Your task to perform on an android device: toggle improve location accuracy Image 0: 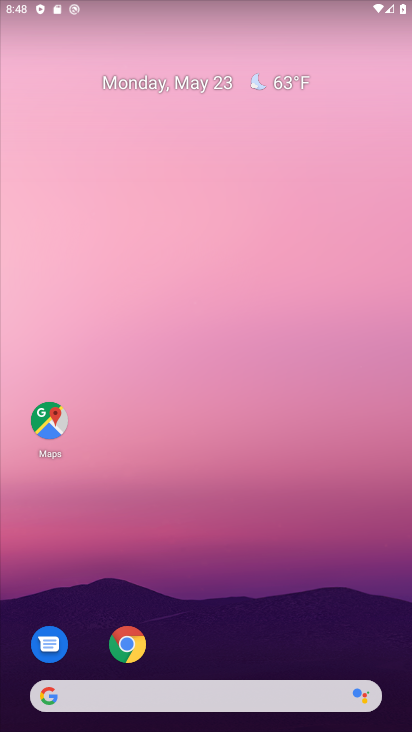
Step 0: press home button
Your task to perform on an android device: toggle improve location accuracy Image 1: 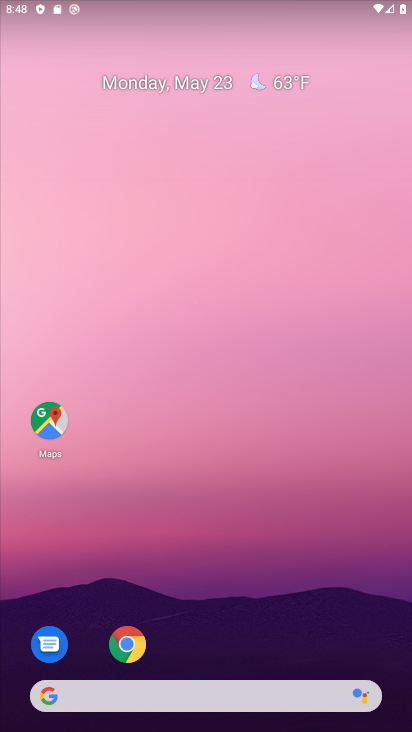
Step 1: drag from (221, 663) to (240, 210)
Your task to perform on an android device: toggle improve location accuracy Image 2: 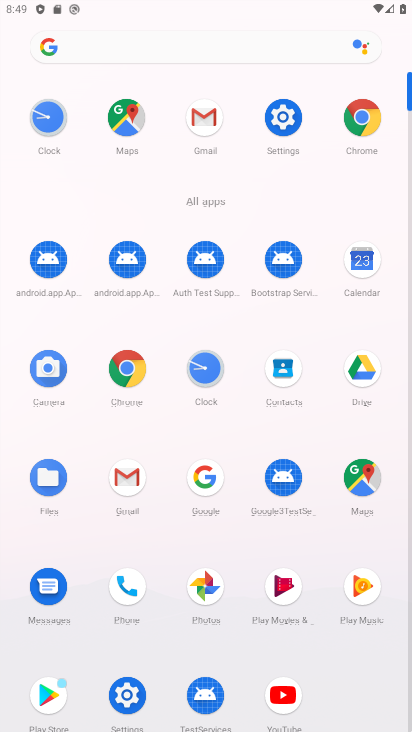
Step 2: click (123, 684)
Your task to perform on an android device: toggle improve location accuracy Image 3: 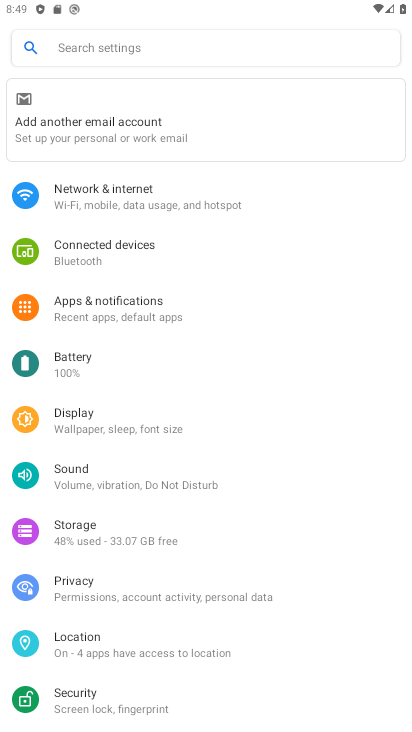
Step 3: click (104, 640)
Your task to perform on an android device: toggle improve location accuracy Image 4: 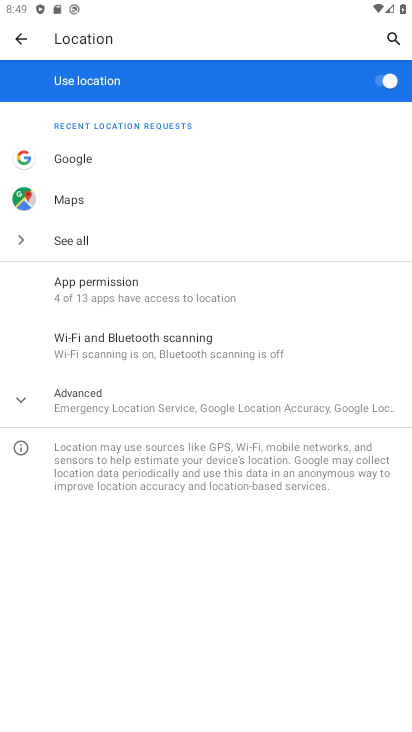
Step 4: click (33, 391)
Your task to perform on an android device: toggle improve location accuracy Image 5: 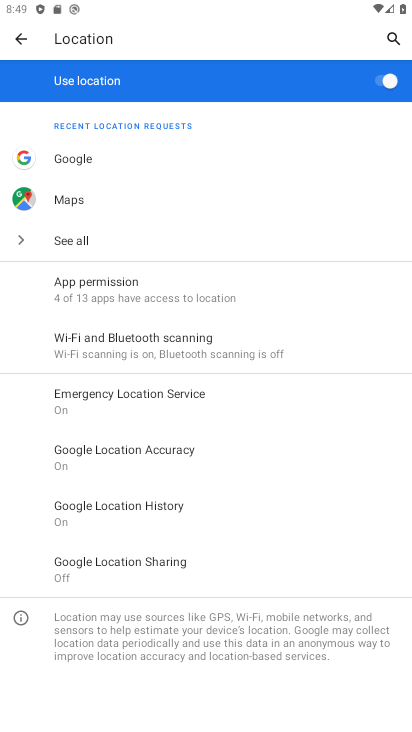
Step 5: click (130, 457)
Your task to perform on an android device: toggle improve location accuracy Image 6: 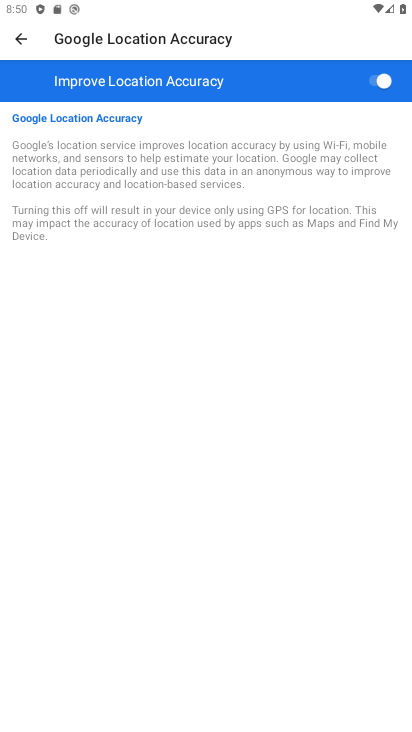
Step 6: click (372, 76)
Your task to perform on an android device: toggle improve location accuracy Image 7: 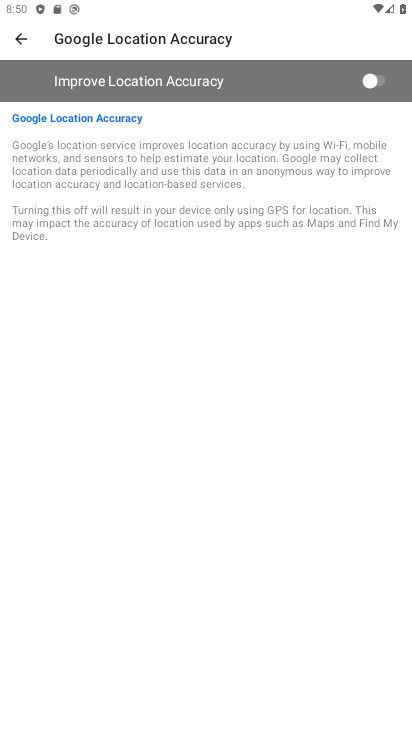
Step 7: task complete